Your task to perform on an android device: check android version Image 0: 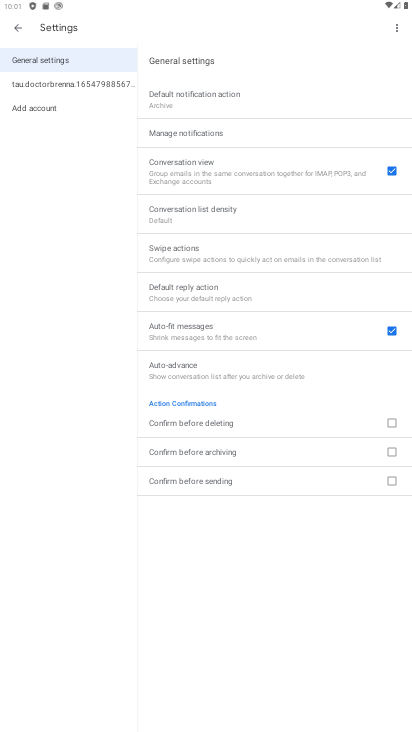
Step 0: press back button
Your task to perform on an android device: check android version Image 1: 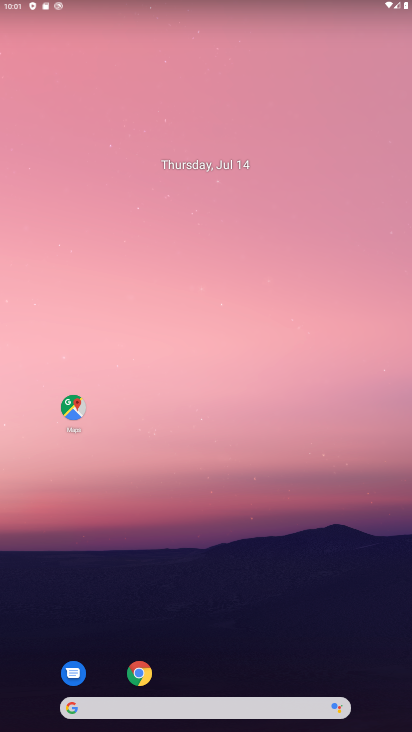
Step 1: drag from (215, 643) to (356, 29)
Your task to perform on an android device: check android version Image 2: 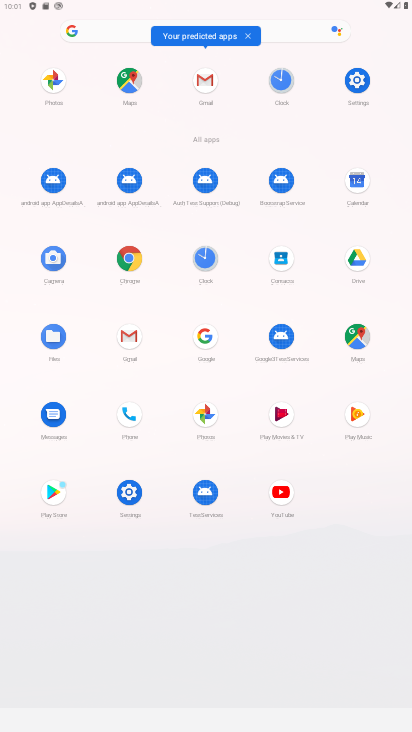
Step 2: click (356, 89)
Your task to perform on an android device: check android version Image 3: 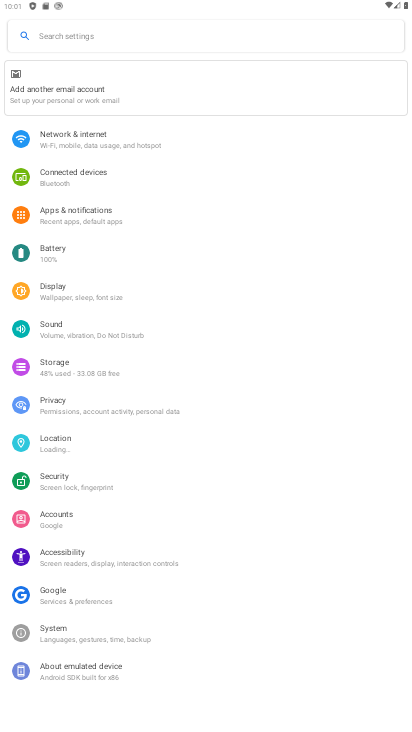
Step 3: drag from (172, 529) to (256, 7)
Your task to perform on an android device: check android version Image 4: 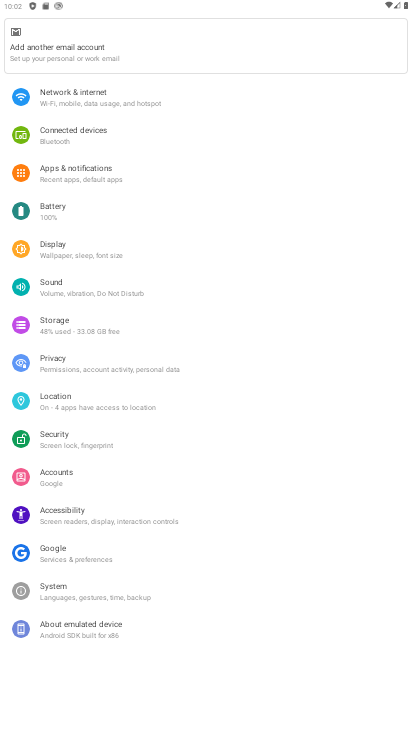
Step 4: click (126, 628)
Your task to perform on an android device: check android version Image 5: 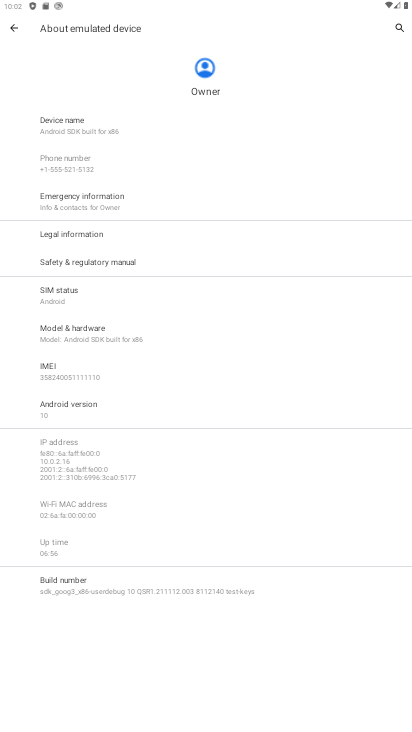
Step 5: click (112, 405)
Your task to perform on an android device: check android version Image 6: 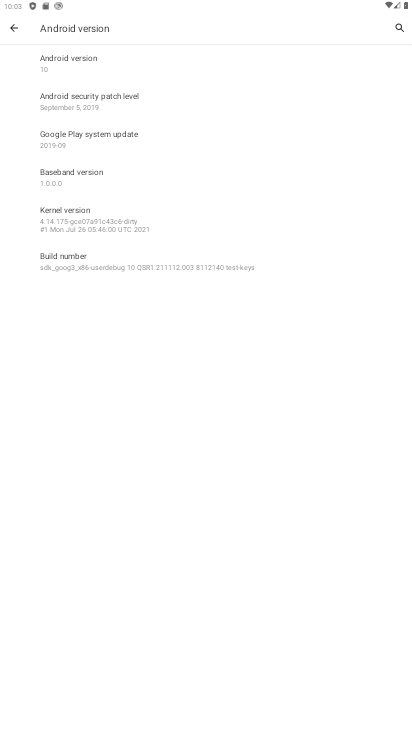
Step 6: click (76, 66)
Your task to perform on an android device: check android version Image 7: 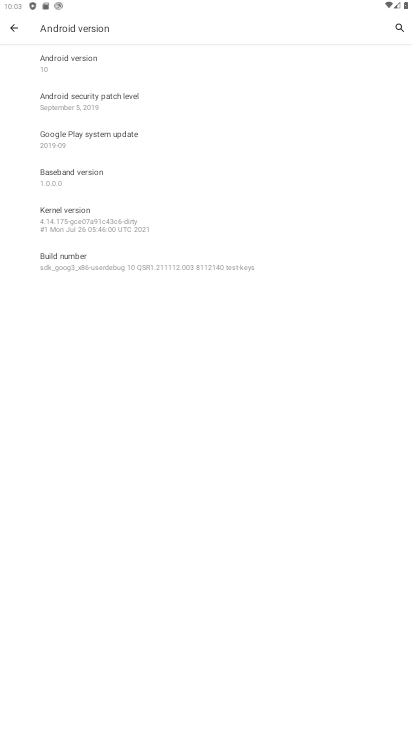
Step 7: click (57, 64)
Your task to perform on an android device: check android version Image 8: 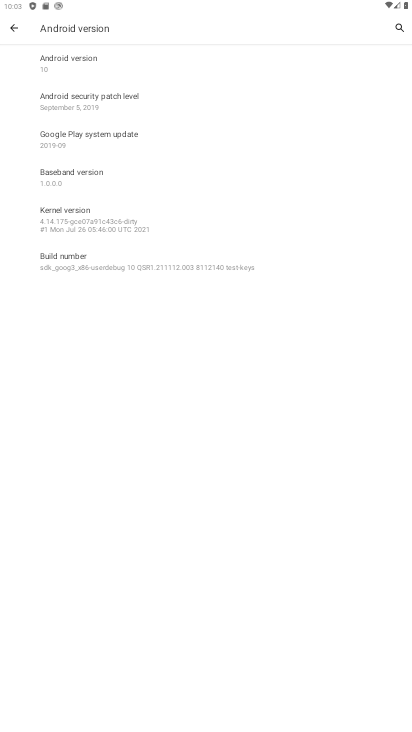
Step 8: task complete